Your task to perform on an android device: Search for vegetarian restaurants on Maps Image 0: 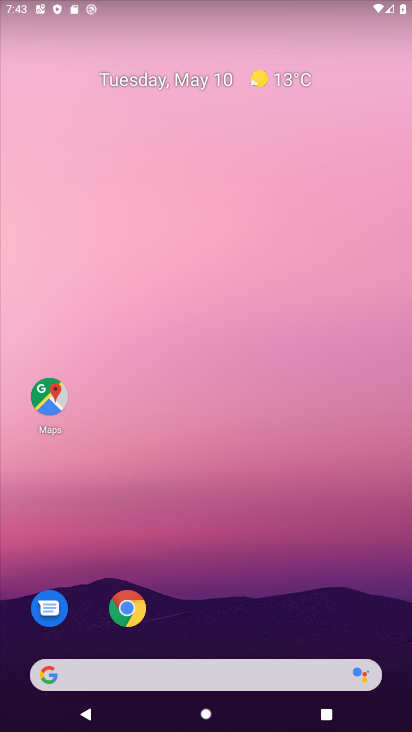
Step 0: click (48, 397)
Your task to perform on an android device: Search for vegetarian restaurants on Maps Image 1: 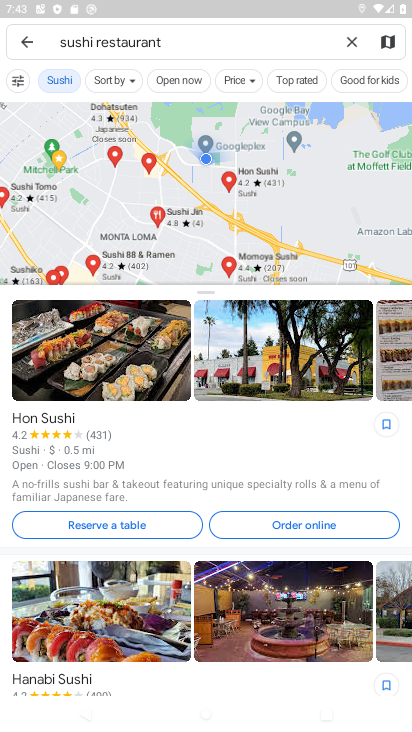
Step 1: click (352, 39)
Your task to perform on an android device: Search for vegetarian restaurants on Maps Image 2: 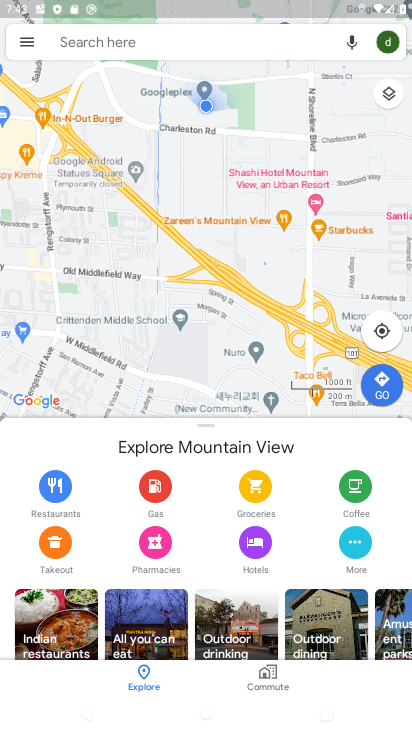
Step 2: click (180, 43)
Your task to perform on an android device: Search for vegetarian restaurants on Maps Image 3: 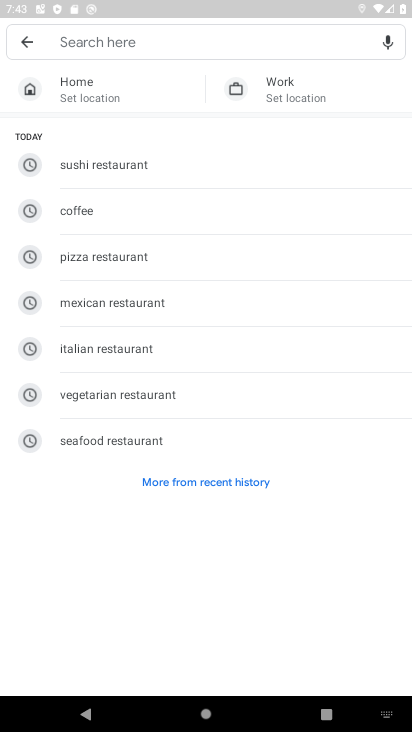
Step 3: click (133, 394)
Your task to perform on an android device: Search for vegetarian restaurants on Maps Image 4: 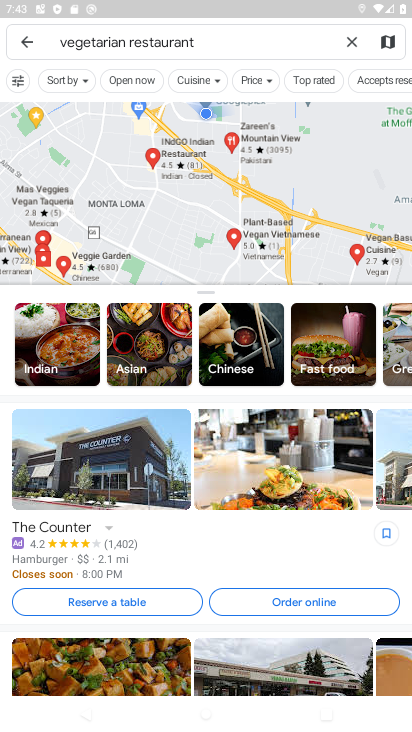
Step 4: task complete